Your task to perform on an android device: Open Google Maps and go to "Timeline" Image 0: 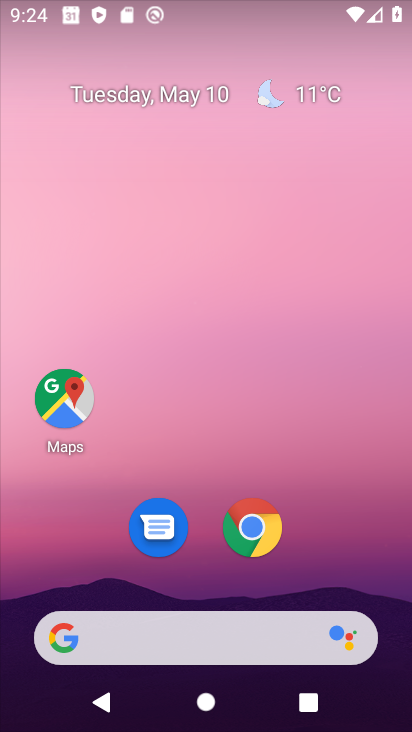
Step 0: drag from (338, 472) to (279, 123)
Your task to perform on an android device: Open Google Maps and go to "Timeline" Image 1: 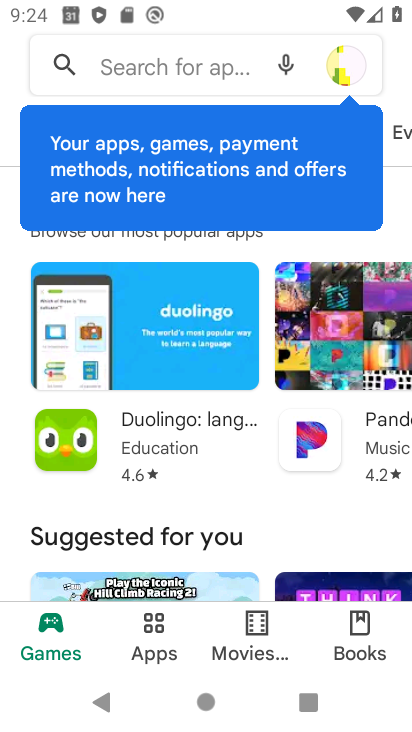
Step 1: press home button
Your task to perform on an android device: Open Google Maps and go to "Timeline" Image 2: 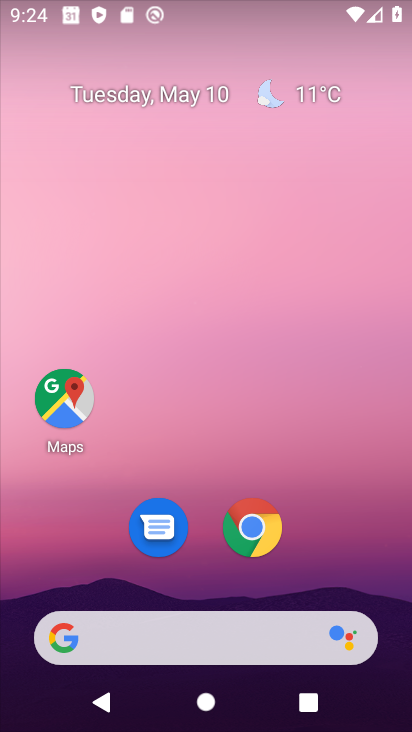
Step 2: click (69, 389)
Your task to perform on an android device: Open Google Maps and go to "Timeline" Image 3: 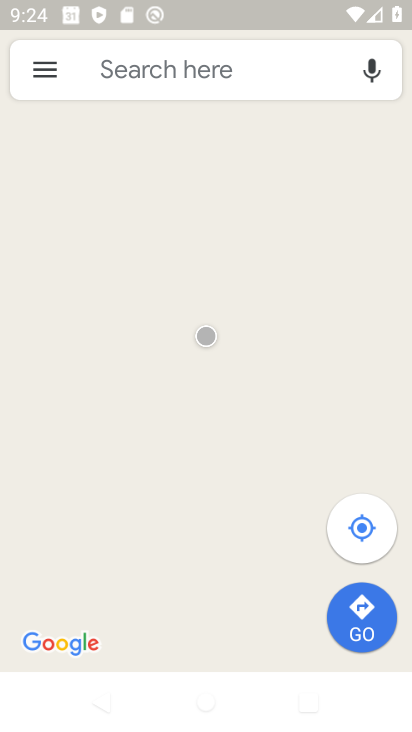
Step 3: click (46, 74)
Your task to perform on an android device: Open Google Maps and go to "Timeline" Image 4: 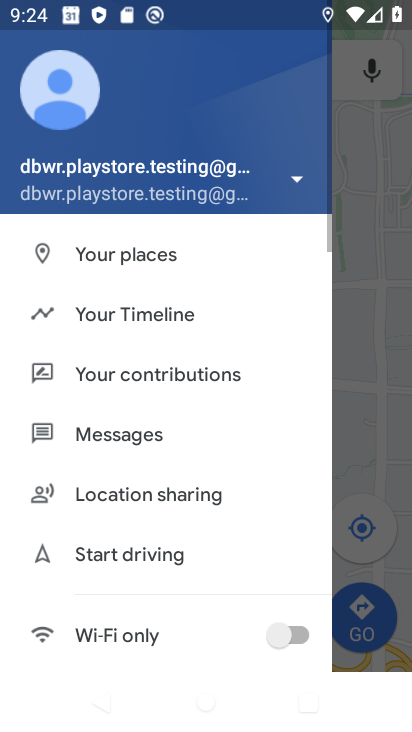
Step 4: drag from (200, 513) to (190, 298)
Your task to perform on an android device: Open Google Maps and go to "Timeline" Image 5: 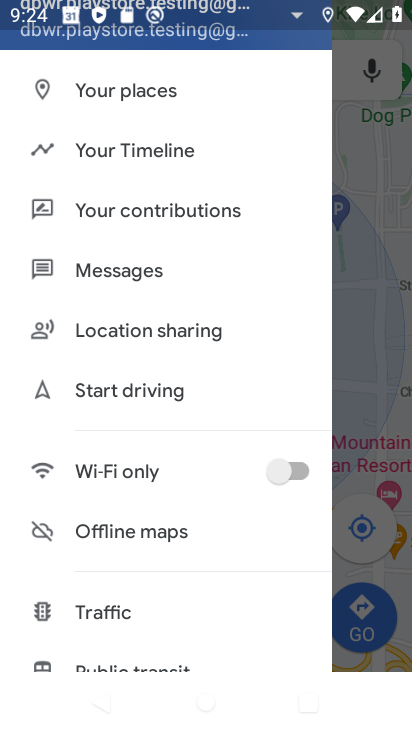
Step 5: drag from (196, 515) to (165, 283)
Your task to perform on an android device: Open Google Maps and go to "Timeline" Image 6: 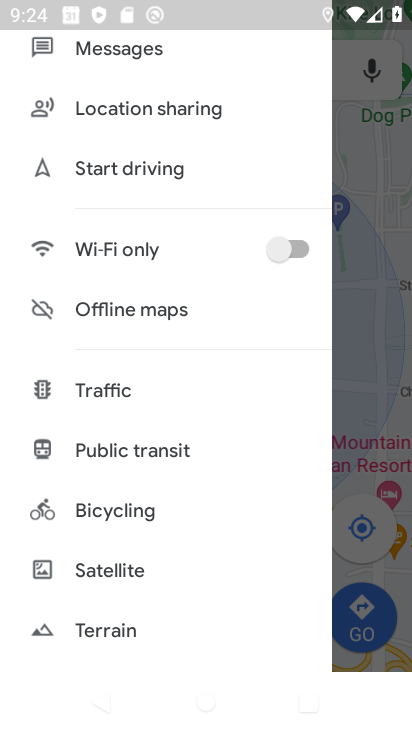
Step 6: drag from (179, 584) to (142, 349)
Your task to perform on an android device: Open Google Maps and go to "Timeline" Image 7: 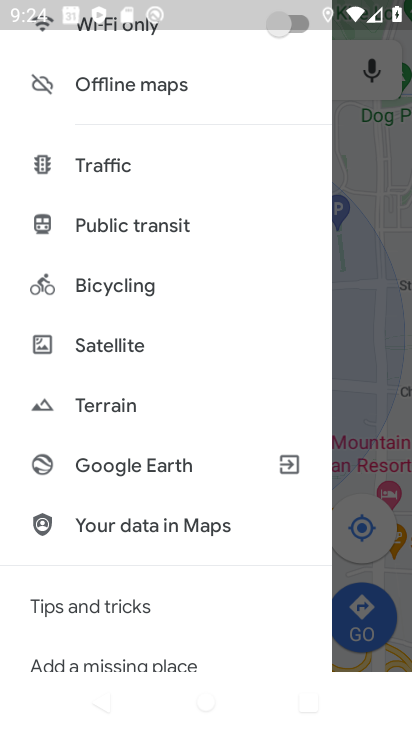
Step 7: drag from (186, 565) to (165, 368)
Your task to perform on an android device: Open Google Maps and go to "Timeline" Image 8: 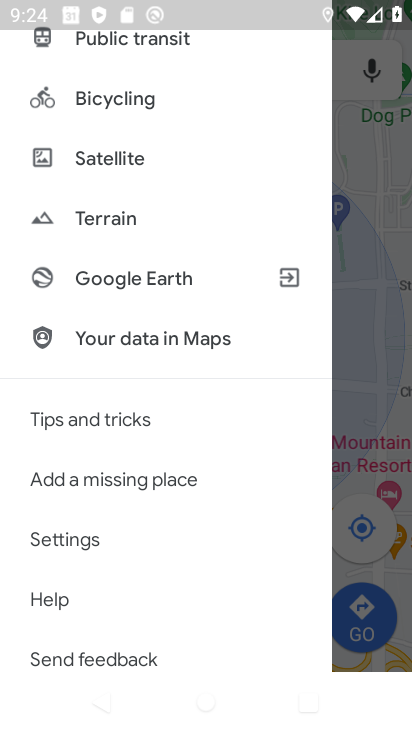
Step 8: drag from (164, 118) to (193, 649)
Your task to perform on an android device: Open Google Maps and go to "Timeline" Image 9: 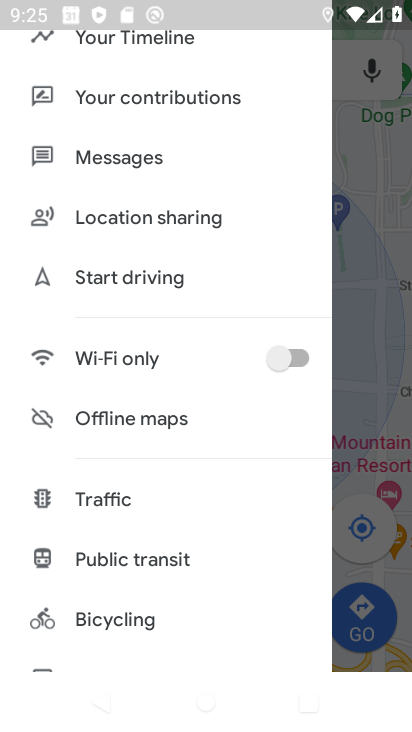
Step 9: click (191, 38)
Your task to perform on an android device: Open Google Maps and go to "Timeline" Image 10: 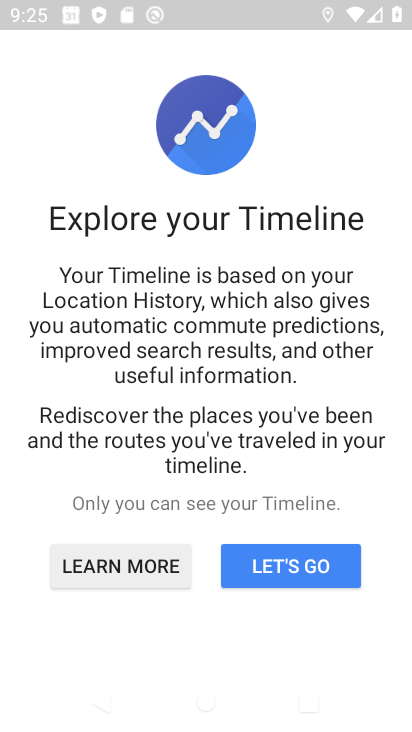
Step 10: click (270, 571)
Your task to perform on an android device: Open Google Maps and go to "Timeline" Image 11: 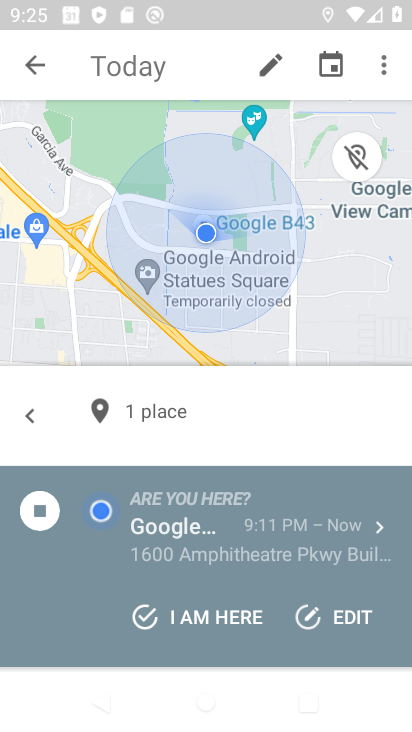
Step 11: task complete